Your task to perform on an android device: see sites visited before in the chrome app Image 0: 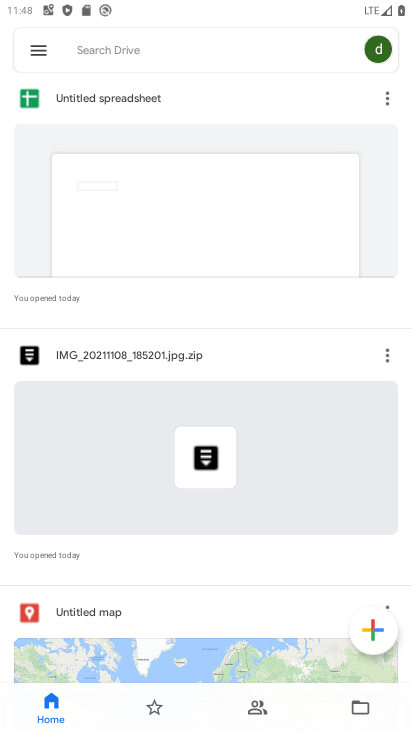
Step 0: press home button
Your task to perform on an android device: see sites visited before in the chrome app Image 1: 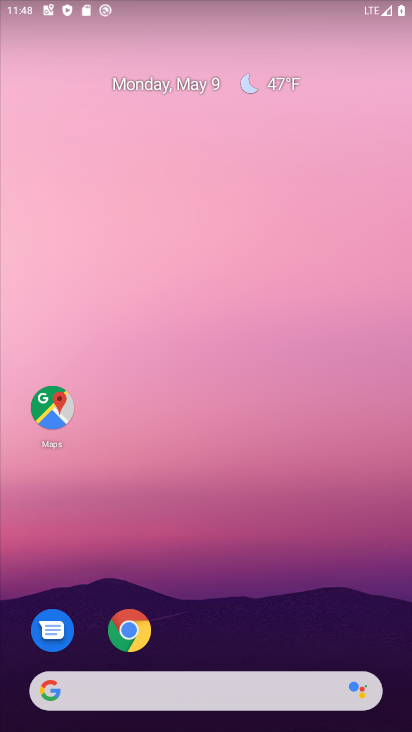
Step 1: click (134, 634)
Your task to perform on an android device: see sites visited before in the chrome app Image 2: 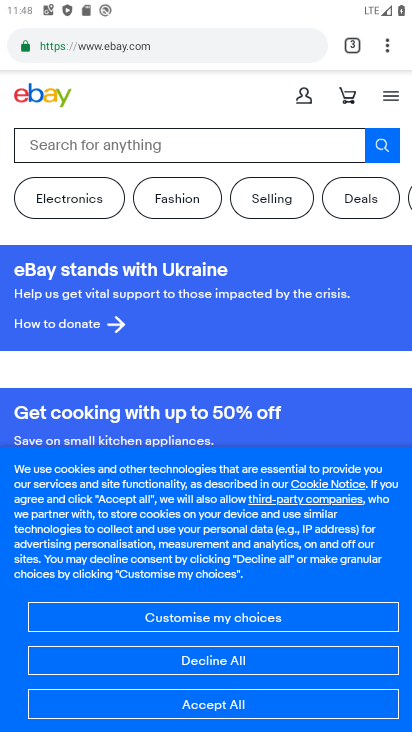
Step 2: task complete